Your task to perform on an android device: check google app version Image 0: 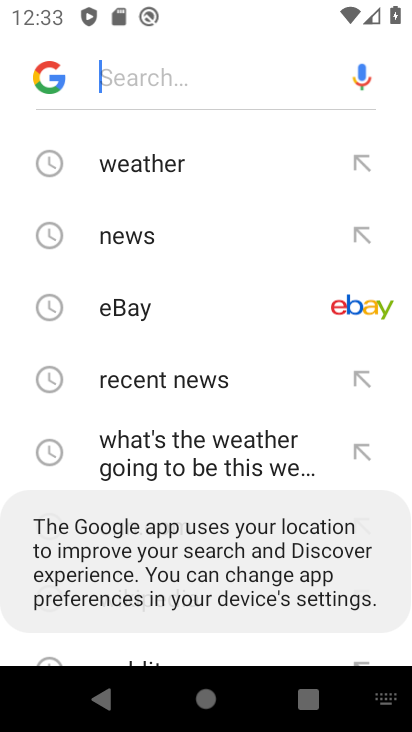
Step 0: press home button
Your task to perform on an android device: check google app version Image 1: 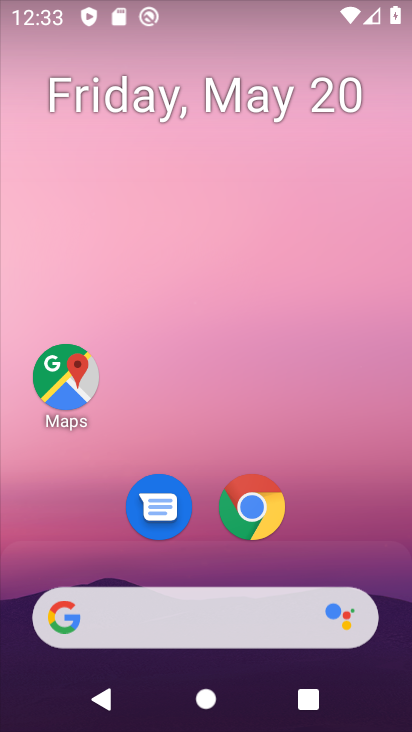
Step 1: drag from (339, 465) to (290, 59)
Your task to perform on an android device: check google app version Image 2: 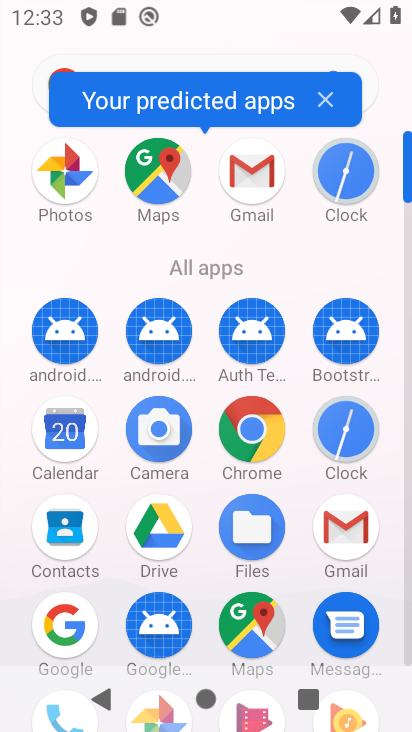
Step 2: drag from (216, 441) to (230, 169)
Your task to perform on an android device: check google app version Image 3: 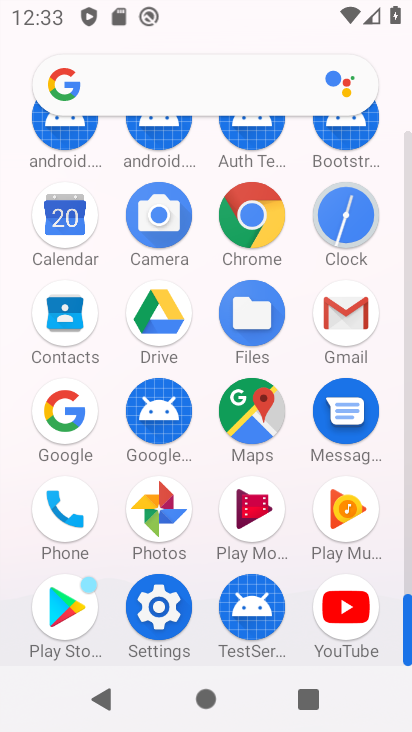
Step 3: click (75, 418)
Your task to perform on an android device: check google app version Image 4: 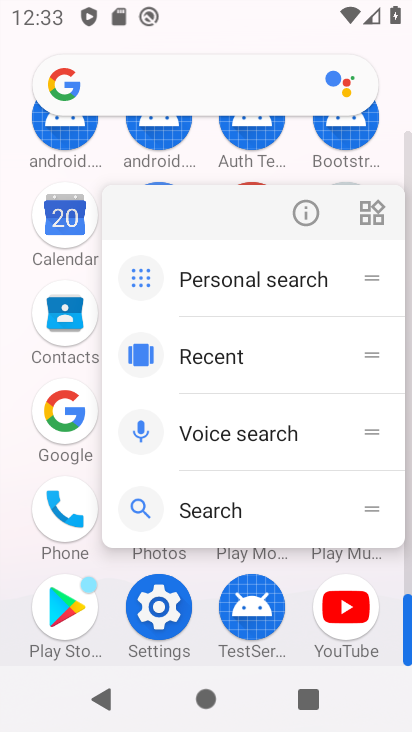
Step 4: click (312, 202)
Your task to perform on an android device: check google app version Image 5: 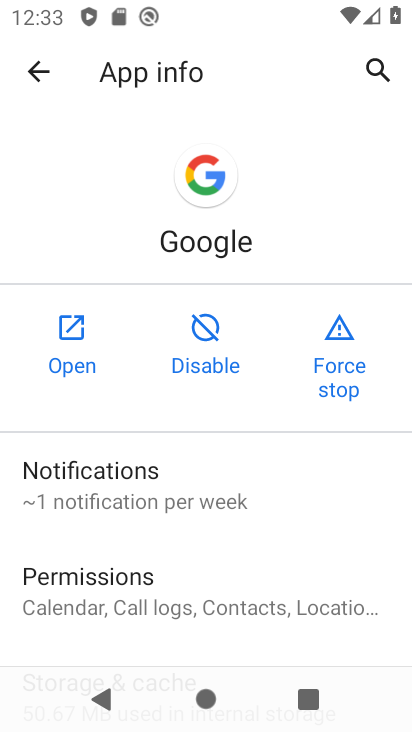
Step 5: drag from (175, 518) to (165, 60)
Your task to perform on an android device: check google app version Image 6: 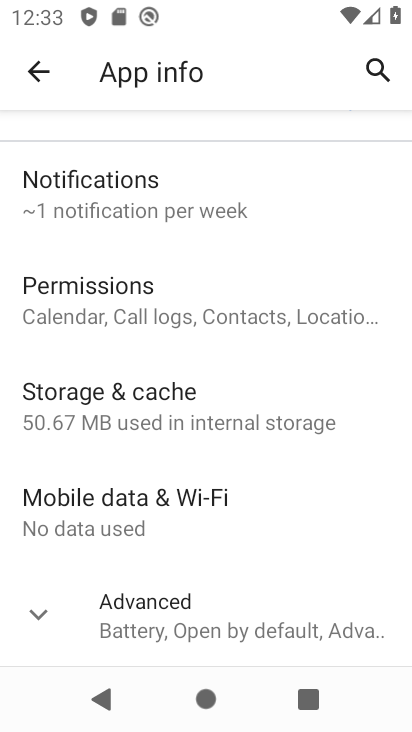
Step 6: click (153, 597)
Your task to perform on an android device: check google app version Image 7: 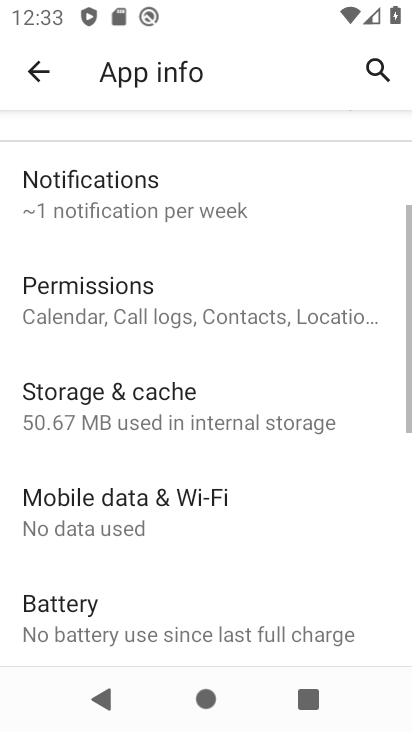
Step 7: task complete